Your task to perform on an android device: Open CNN.com Image 0: 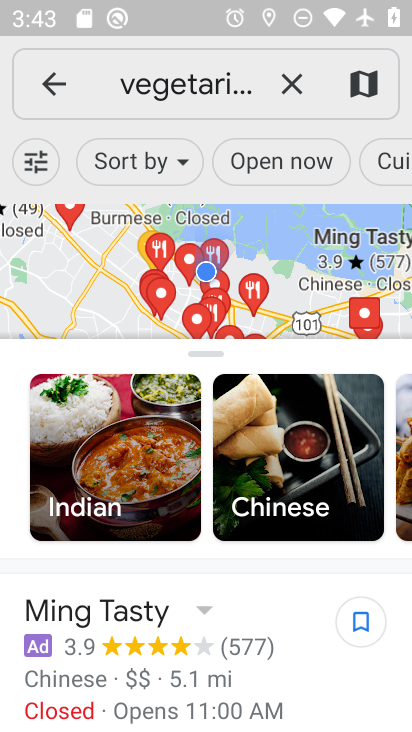
Step 0: press home button
Your task to perform on an android device: Open CNN.com Image 1: 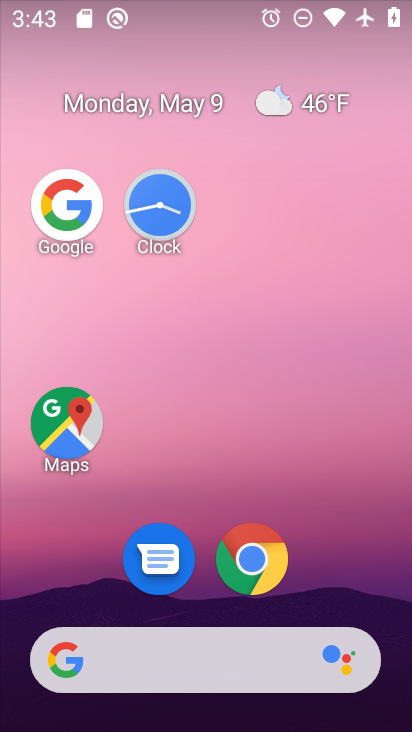
Step 1: drag from (328, 605) to (342, 91)
Your task to perform on an android device: Open CNN.com Image 2: 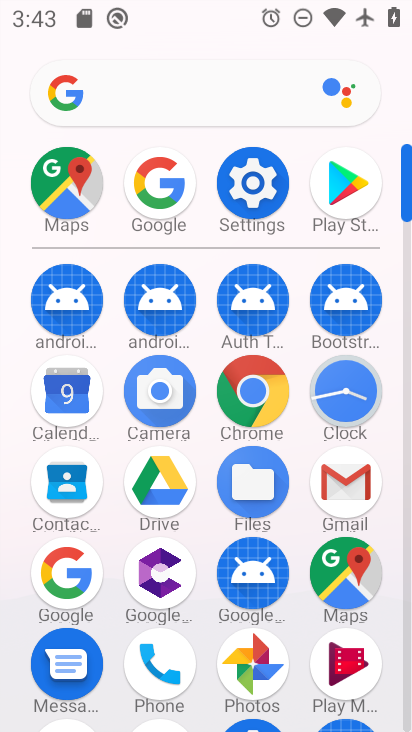
Step 2: click (256, 179)
Your task to perform on an android device: Open CNN.com Image 3: 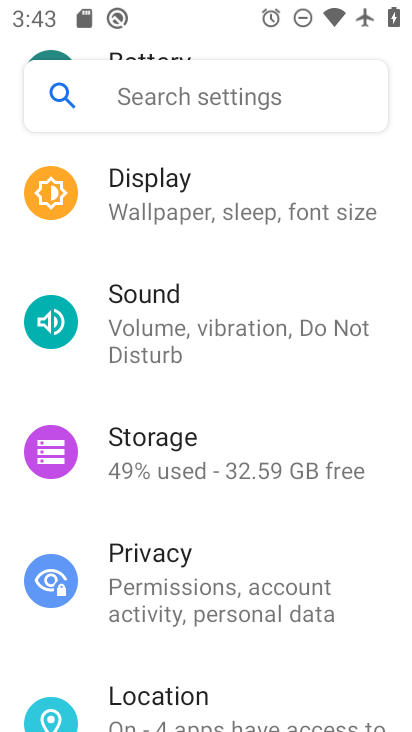
Step 3: drag from (295, 250) to (310, 681)
Your task to perform on an android device: Open CNN.com Image 4: 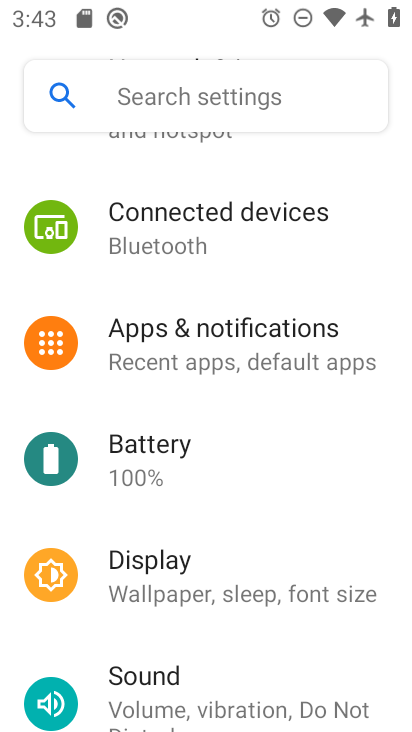
Step 4: drag from (312, 186) to (317, 555)
Your task to perform on an android device: Open CNN.com Image 5: 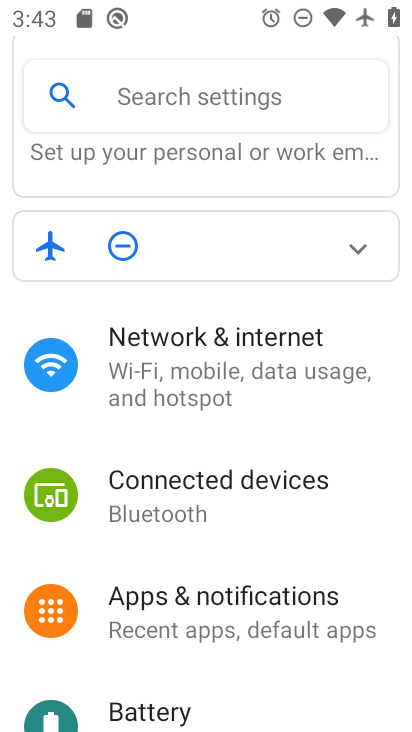
Step 5: click (255, 364)
Your task to perform on an android device: Open CNN.com Image 6: 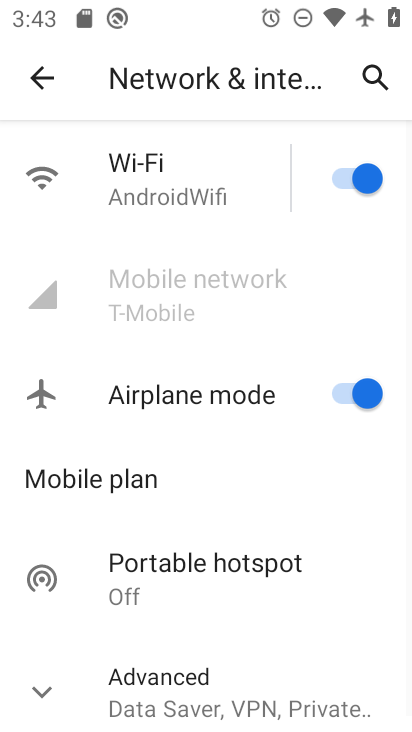
Step 6: click (370, 402)
Your task to perform on an android device: Open CNN.com Image 7: 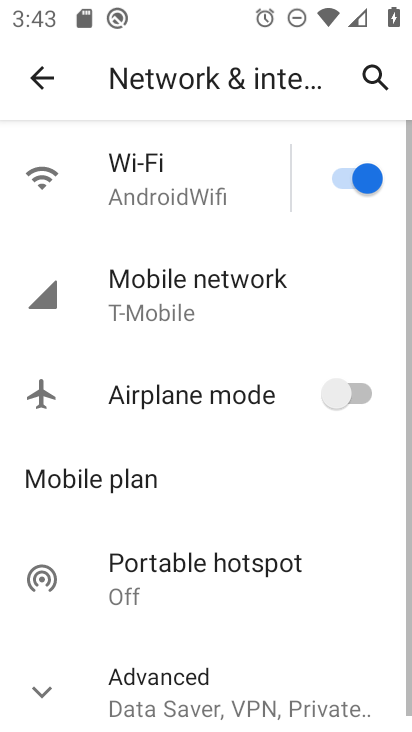
Step 7: press home button
Your task to perform on an android device: Open CNN.com Image 8: 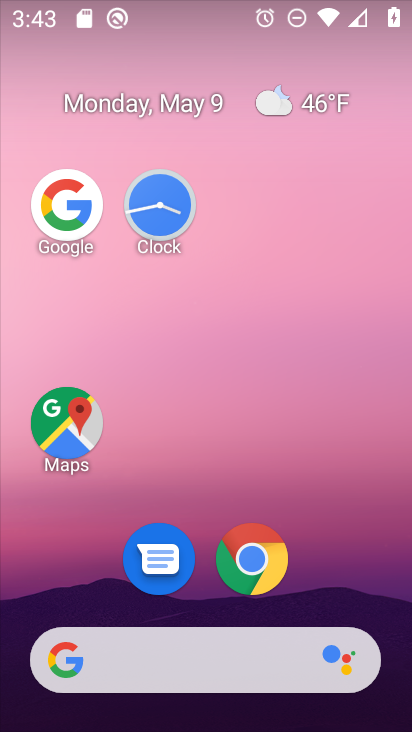
Step 8: click (257, 596)
Your task to perform on an android device: Open CNN.com Image 9: 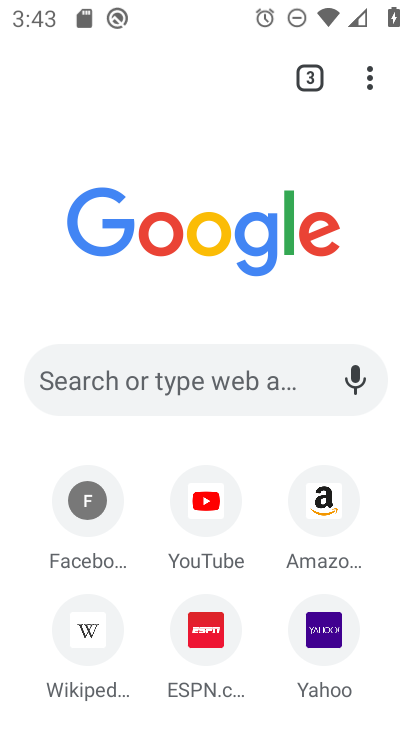
Step 9: click (196, 357)
Your task to perform on an android device: Open CNN.com Image 10: 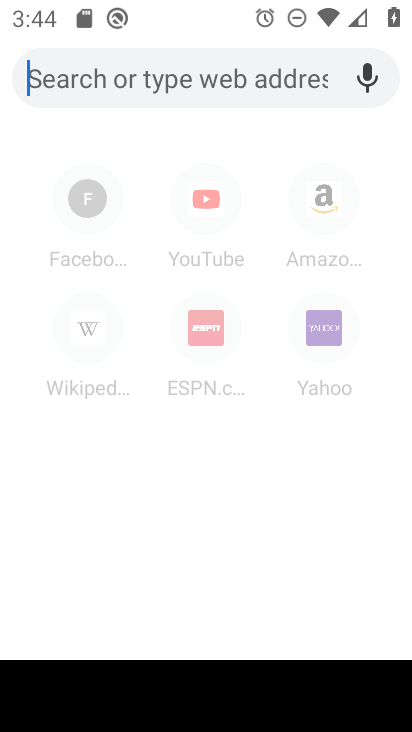
Step 10: type "cnn"
Your task to perform on an android device: Open CNN.com Image 11: 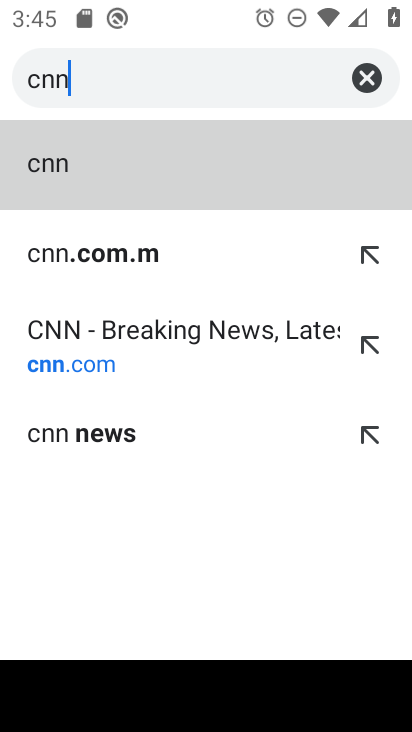
Step 11: click (127, 328)
Your task to perform on an android device: Open CNN.com Image 12: 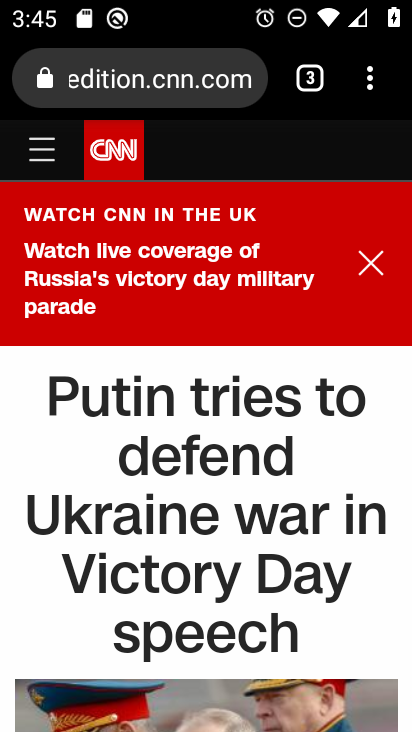
Step 12: task complete